Your task to perform on an android device: Open Chrome and go to settings Image 0: 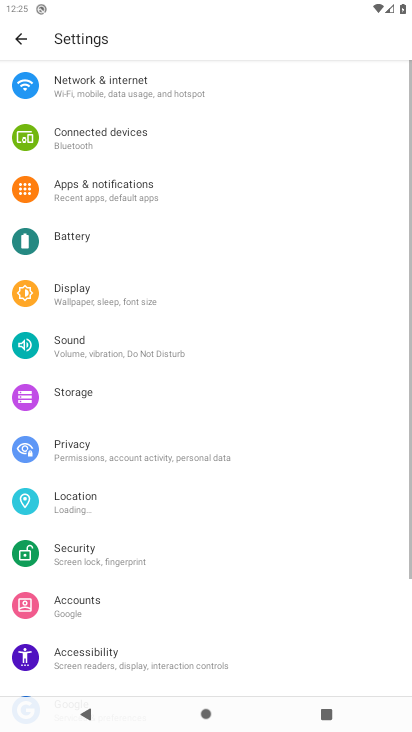
Step 0: drag from (267, 596) to (274, 116)
Your task to perform on an android device: Open Chrome and go to settings Image 1: 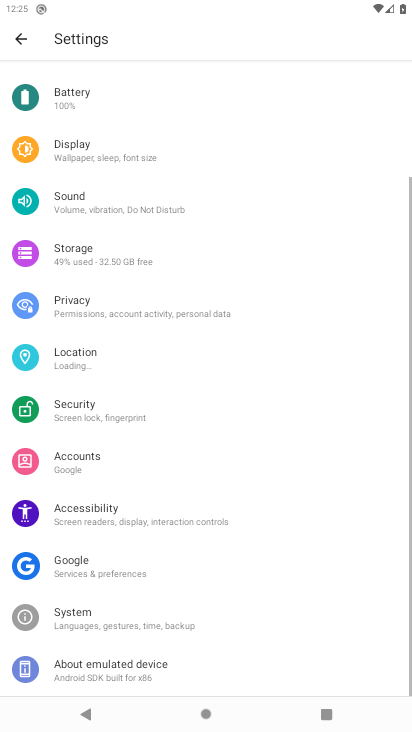
Step 1: press home button
Your task to perform on an android device: Open Chrome and go to settings Image 2: 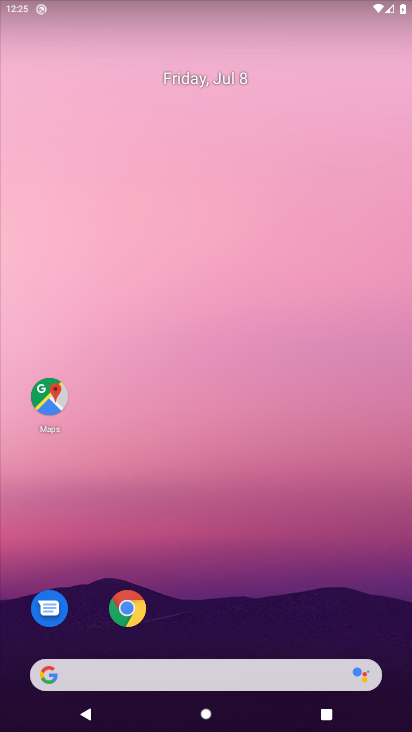
Step 2: click (147, 624)
Your task to perform on an android device: Open Chrome and go to settings Image 3: 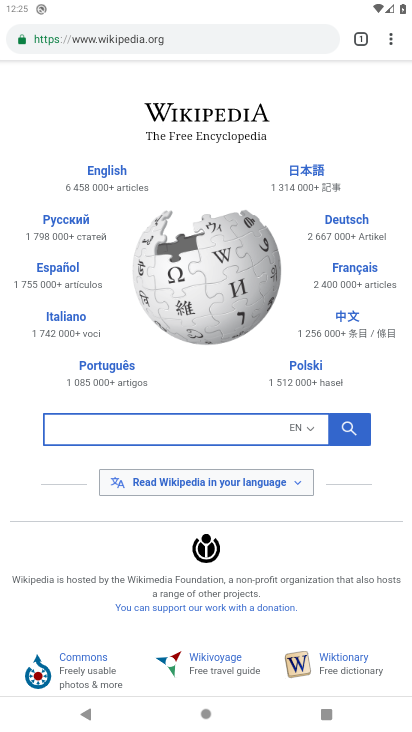
Step 3: task complete